Your task to perform on an android device: Show me popular games on the Play Store Image 0: 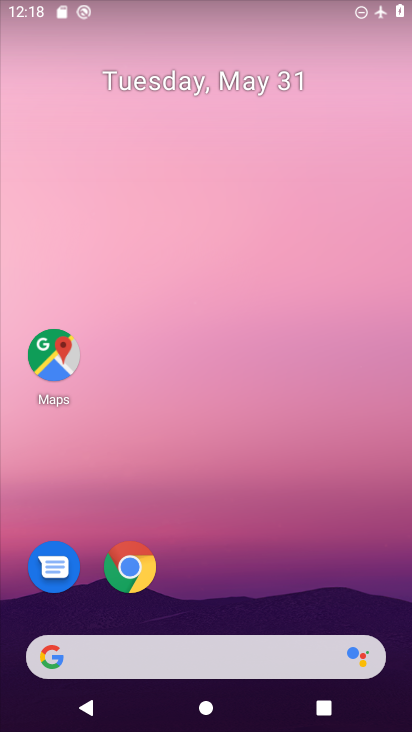
Step 0: drag from (201, 588) to (210, 175)
Your task to perform on an android device: Show me popular games on the Play Store Image 1: 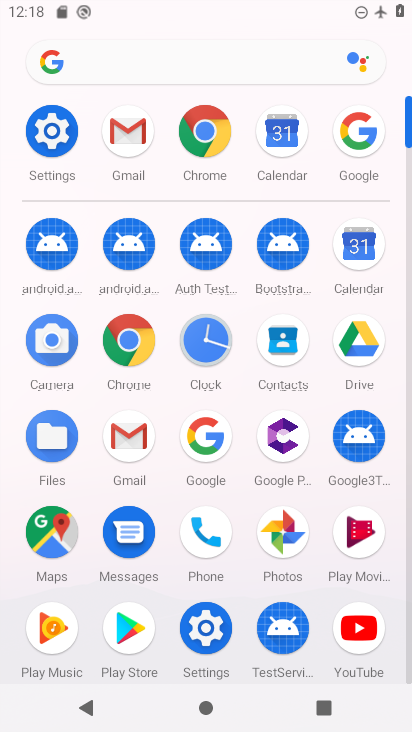
Step 1: click (113, 608)
Your task to perform on an android device: Show me popular games on the Play Store Image 2: 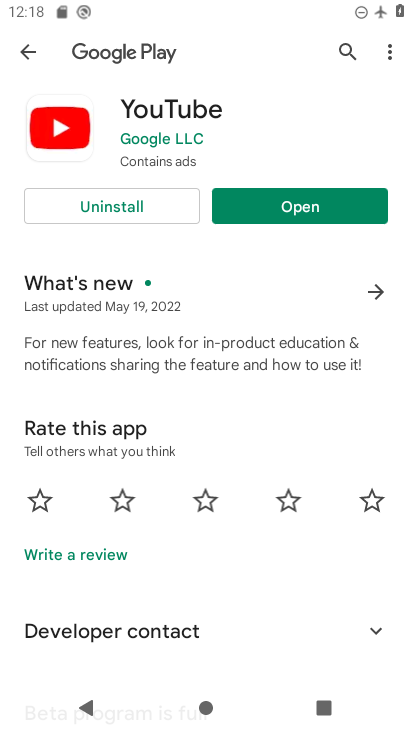
Step 2: click (27, 45)
Your task to perform on an android device: Show me popular games on the Play Store Image 3: 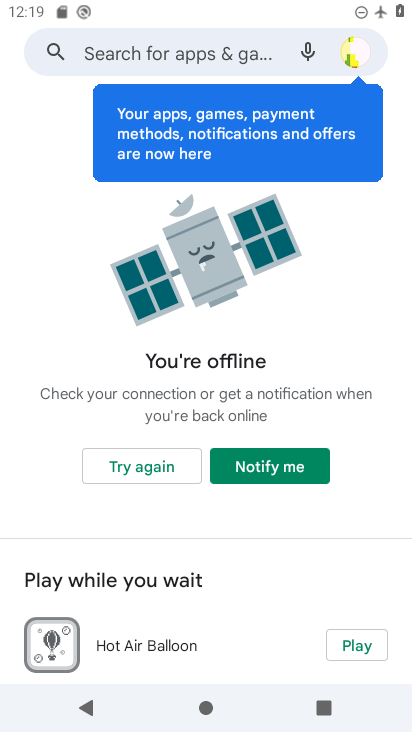
Step 3: task complete